Your task to perform on an android device: open wifi settings Image 0: 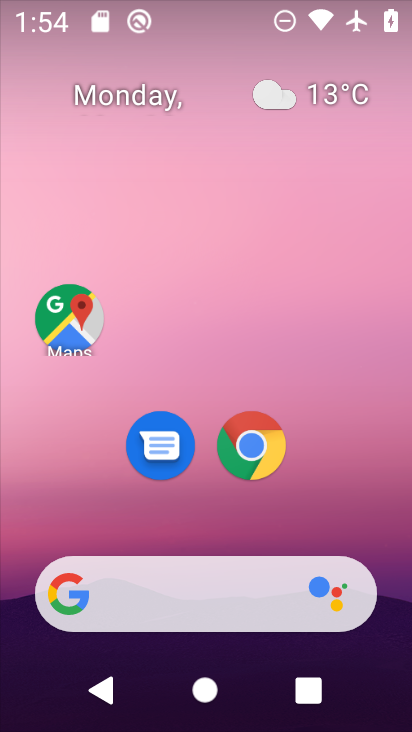
Step 0: drag from (395, 614) to (319, 93)
Your task to perform on an android device: open wifi settings Image 1: 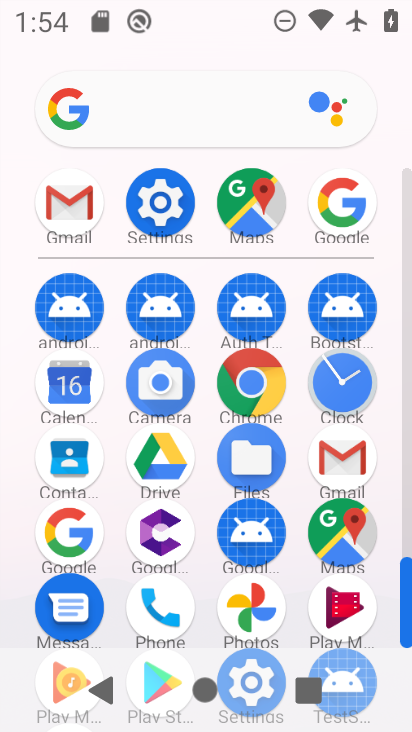
Step 1: drag from (214, 626) to (200, 345)
Your task to perform on an android device: open wifi settings Image 2: 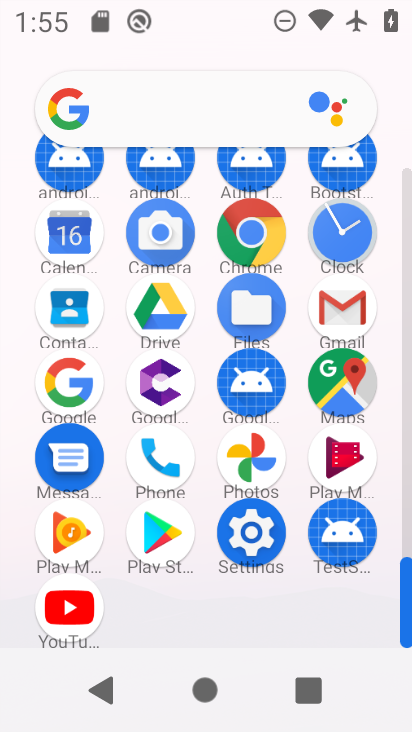
Step 2: click (249, 541)
Your task to perform on an android device: open wifi settings Image 3: 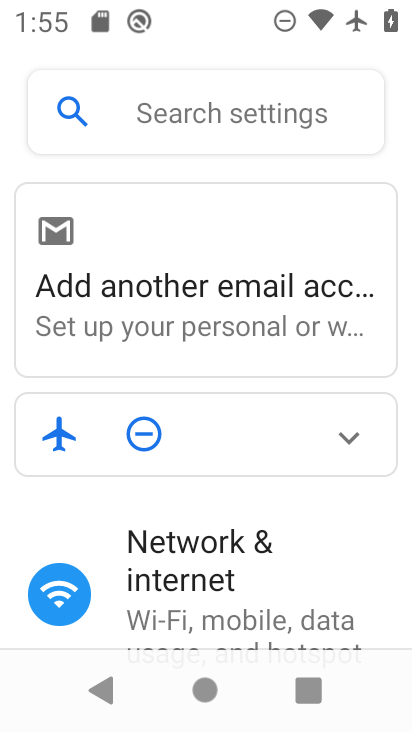
Step 3: click (176, 539)
Your task to perform on an android device: open wifi settings Image 4: 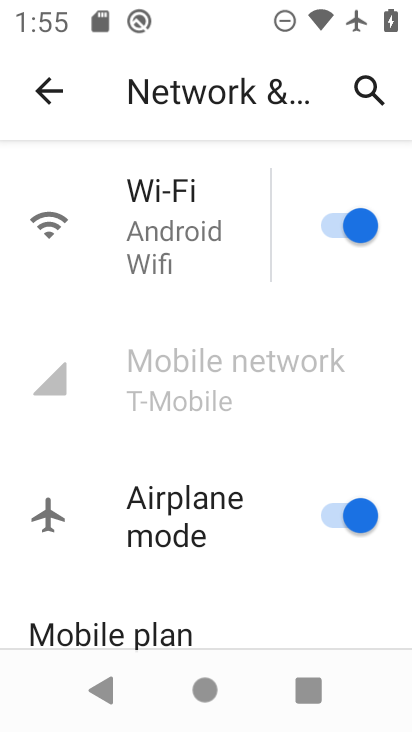
Step 4: click (171, 232)
Your task to perform on an android device: open wifi settings Image 5: 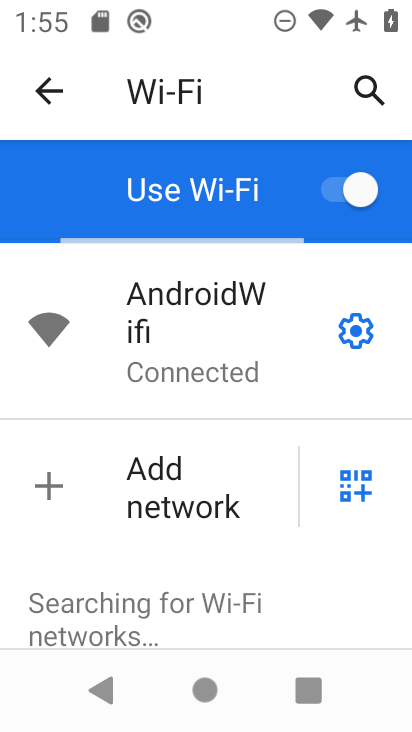
Step 5: task complete